Your task to perform on an android device: turn on wifi Image 0: 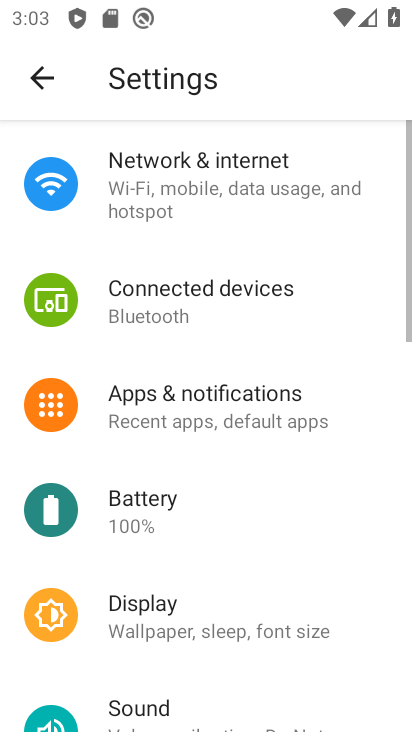
Step 0: drag from (128, 562) to (341, 61)
Your task to perform on an android device: turn on wifi Image 1: 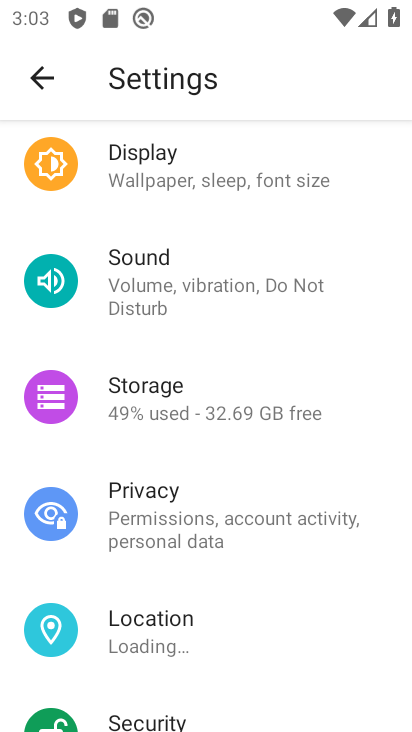
Step 1: task complete